Your task to perform on an android device: toggle show notifications on the lock screen Image 0: 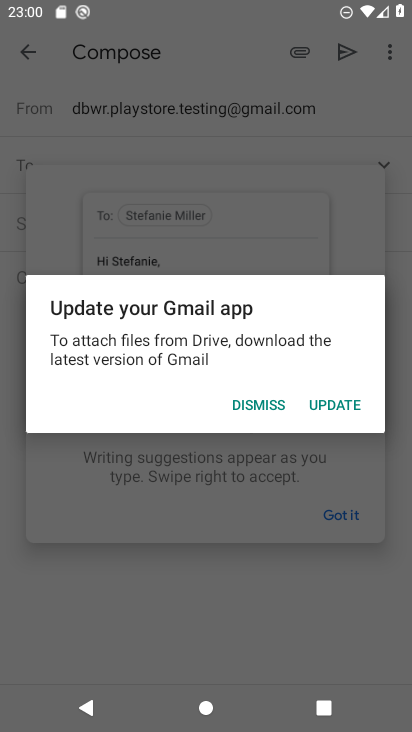
Step 0: press home button
Your task to perform on an android device: toggle show notifications on the lock screen Image 1: 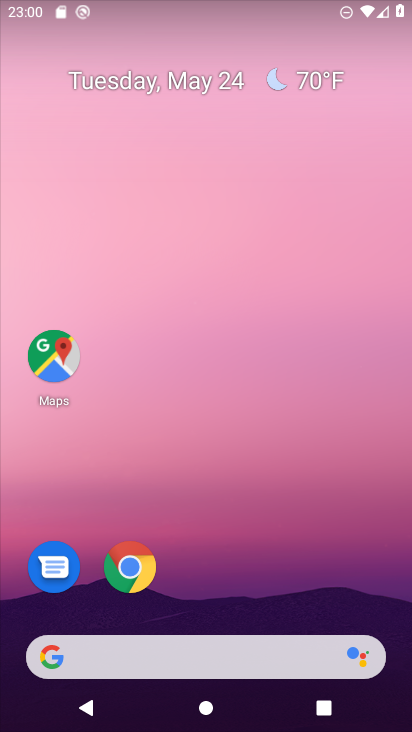
Step 1: drag from (284, 579) to (152, 40)
Your task to perform on an android device: toggle show notifications on the lock screen Image 2: 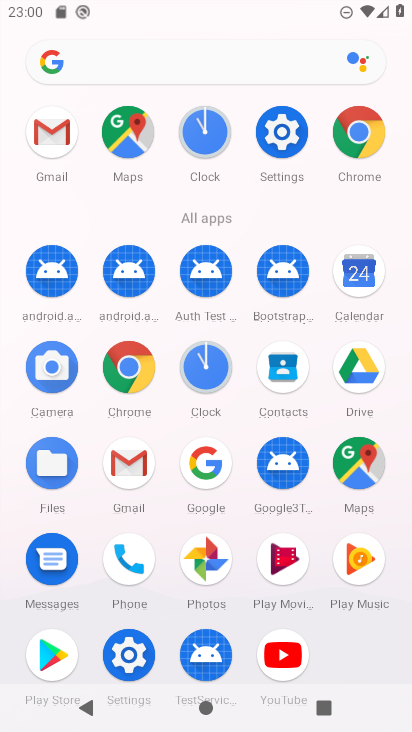
Step 2: click (254, 127)
Your task to perform on an android device: toggle show notifications on the lock screen Image 3: 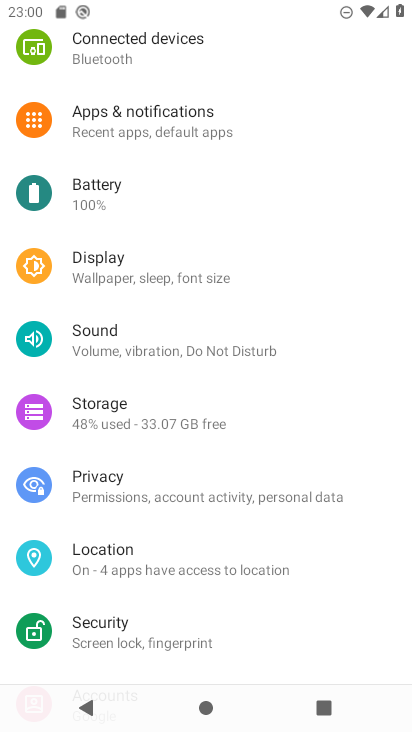
Step 3: click (163, 133)
Your task to perform on an android device: toggle show notifications on the lock screen Image 4: 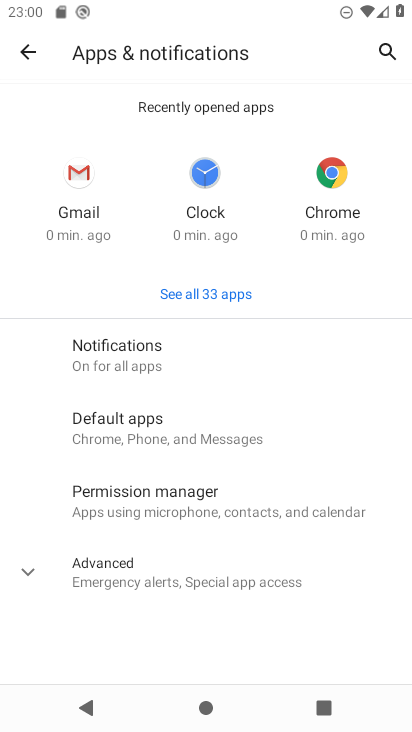
Step 4: click (178, 333)
Your task to perform on an android device: toggle show notifications on the lock screen Image 5: 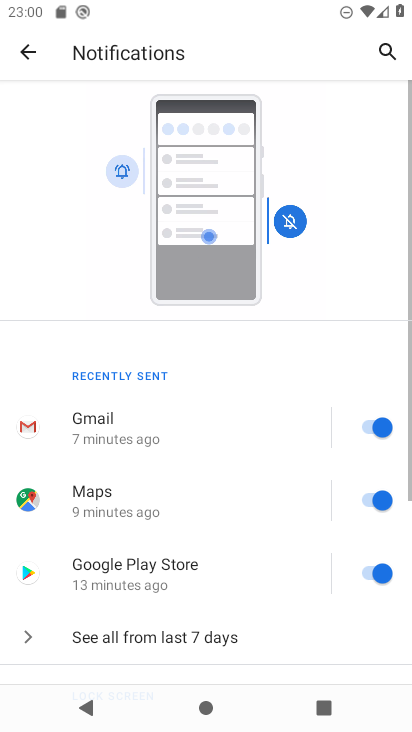
Step 5: drag from (254, 533) to (233, 197)
Your task to perform on an android device: toggle show notifications on the lock screen Image 6: 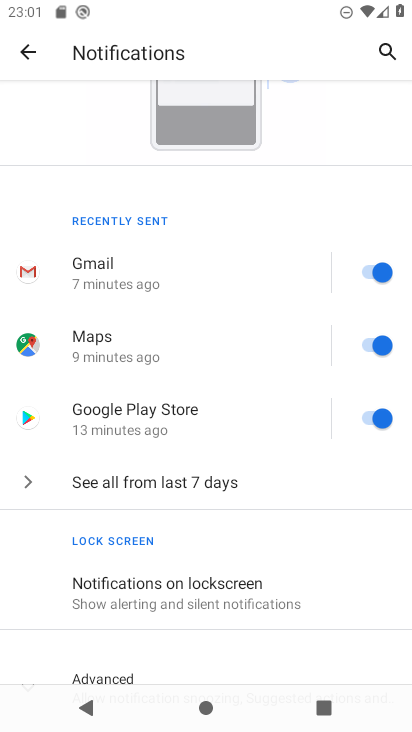
Step 6: click (223, 574)
Your task to perform on an android device: toggle show notifications on the lock screen Image 7: 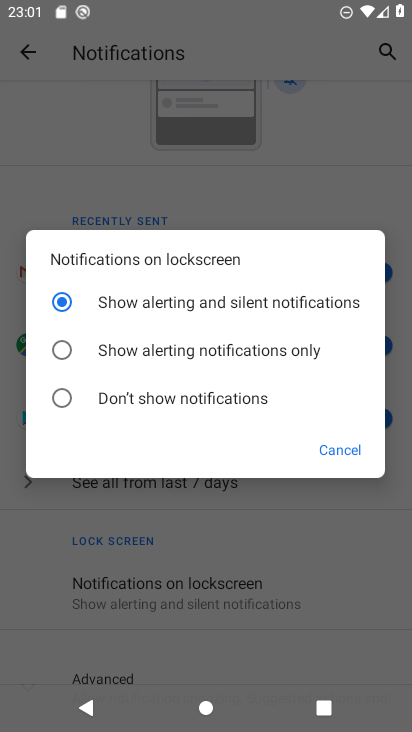
Step 7: click (226, 387)
Your task to perform on an android device: toggle show notifications on the lock screen Image 8: 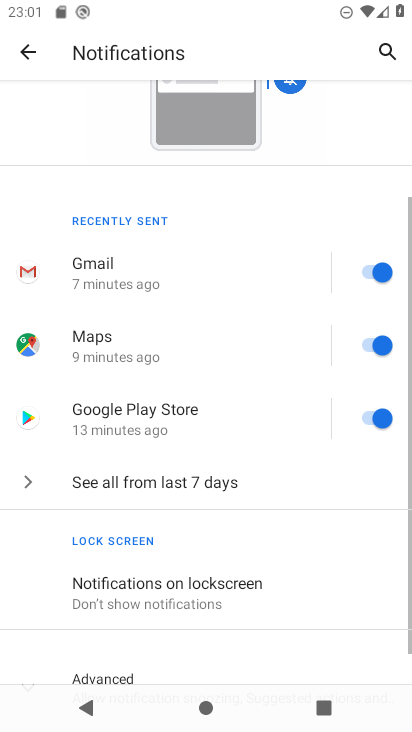
Step 8: task complete